Your task to perform on an android device: Go to Wikipedia Image 0: 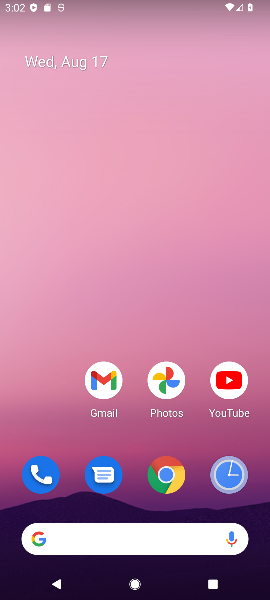
Step 0: click (189, 476)
Your task to perform on an android device: Go to Wikipedia Image 1: 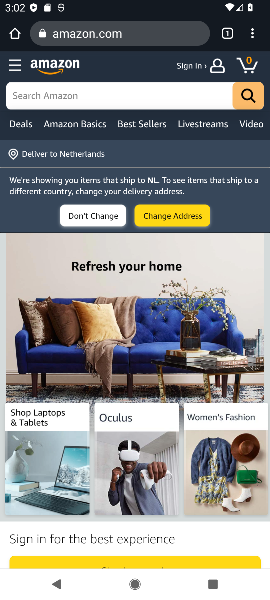
Step 1: click (227, 37)
Your task to perform on an android device: Go to Wikipedia Image 2: 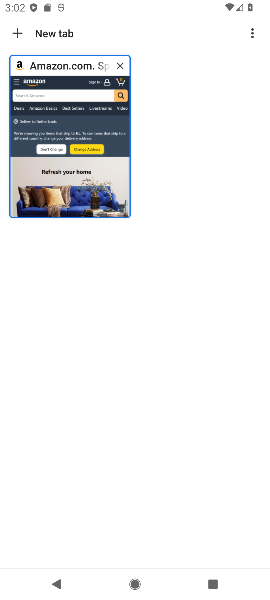
Step 2: click (17, 30)
Your task to perform on an android device: Go to Wikipedia Image 3: 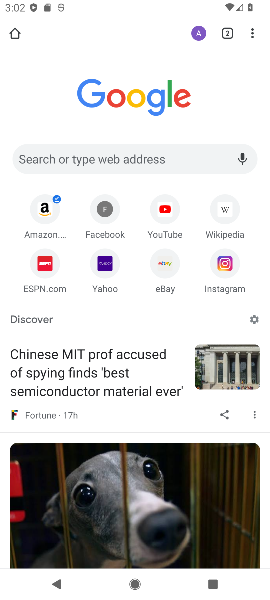
Step 3: click (226, 213)
Your task to perform on an android device: Go to Wikipedia Image 4: 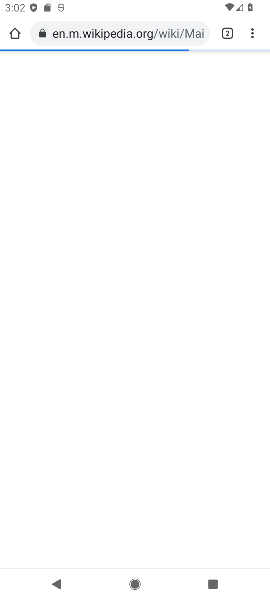
Step 4: click (226, 213)
Your task to perform on an android device: Go to Wikipedia Image 5: 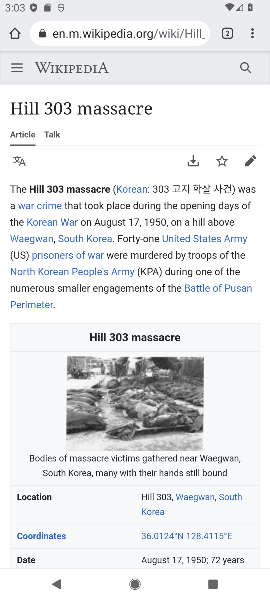
Step 5: task complete